Your task to perform on an android device: Open Google Chrome Image 0: 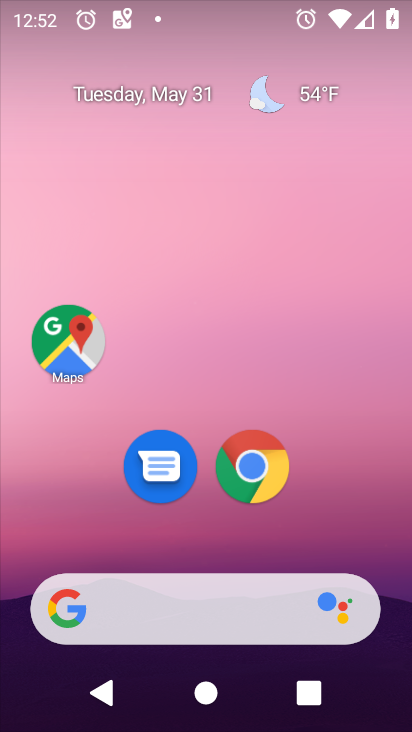
Step 0: click (262, 468)
Your task to perform on an android device: Open Google Chrome Image 1: 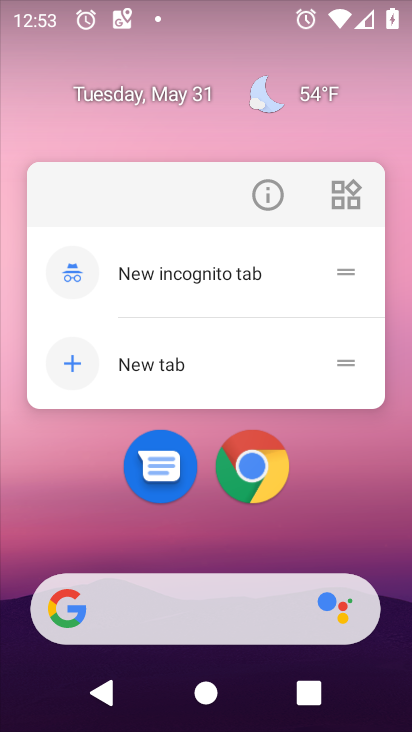
Step 1: click (262, 468)
Your task to perform on an android device: Open Google Chrome Image 2: 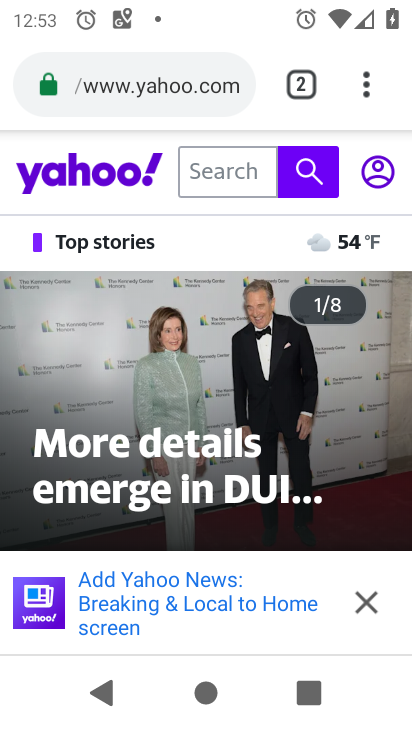
Step 2: press home button
Your task to perform on an android device: Open Google Chrome Image 3: 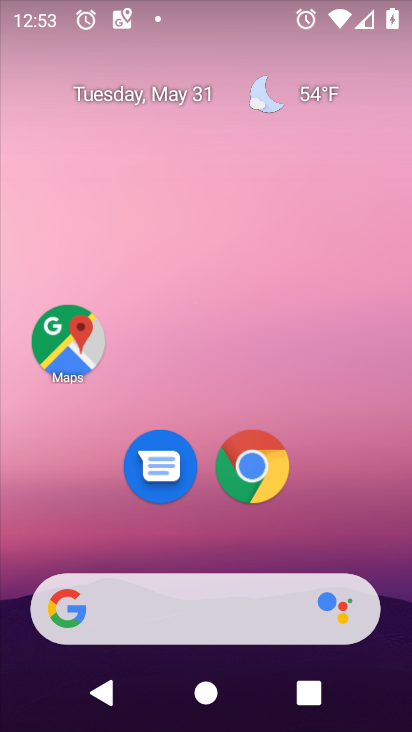
Step 3: click (254, 495)
Your task to perform on an android device: Open Google Chrome Image 4: 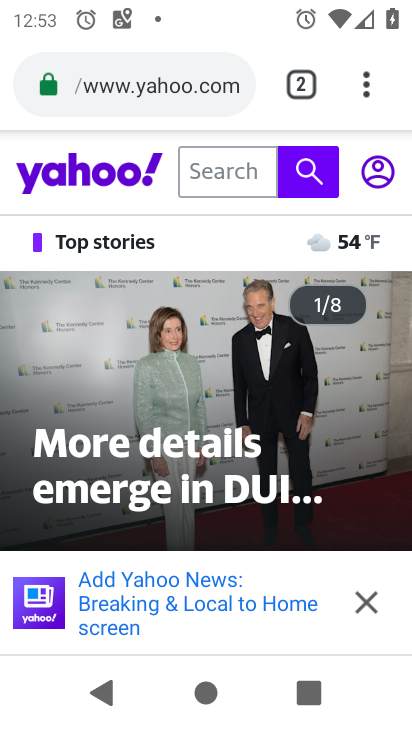
Step 4: task complete